Your task to perform on an android device: star an email in the gmail app Image 0: 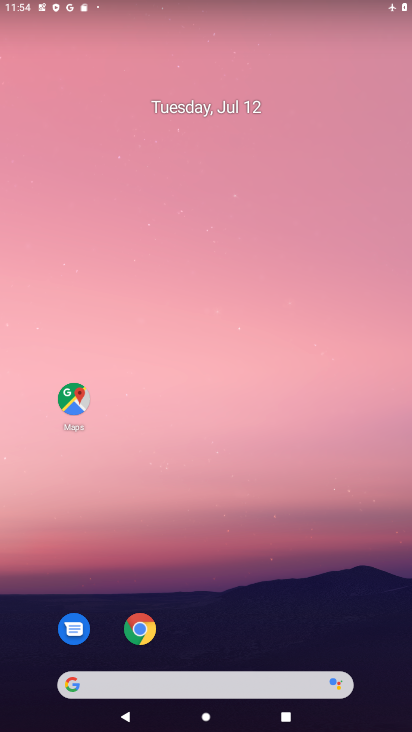
Step 0: drag from (270, 631) to (268, 251)
Your task to perform on an android device: star an email in the gmail app Image 1: 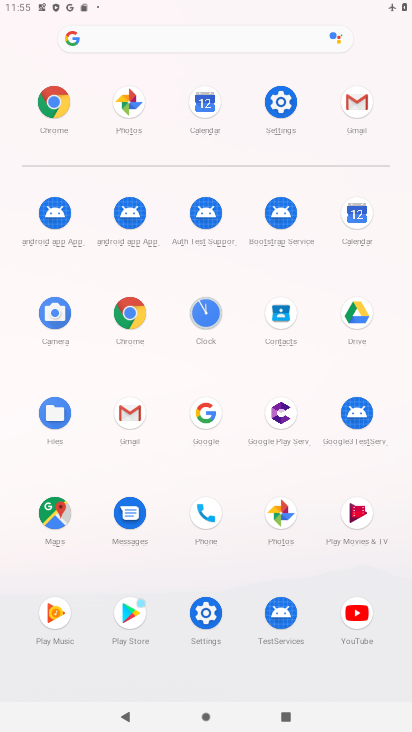
Step 1: click (360, 99)
Your task to perform on an android device: star an email in the gmail app Image 2: 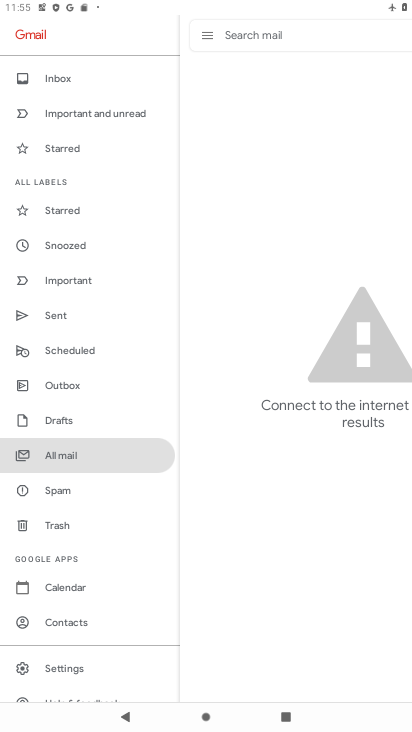
Step 2: click (72, 204)
Your task to perform on an android device: star an email in the gmail app Image 3: 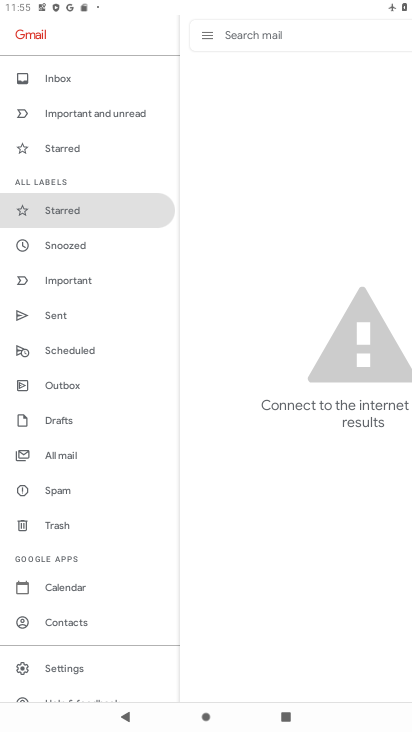
Step 3: task complete